Your task to perform on an android device: Open my contact list Image 0: 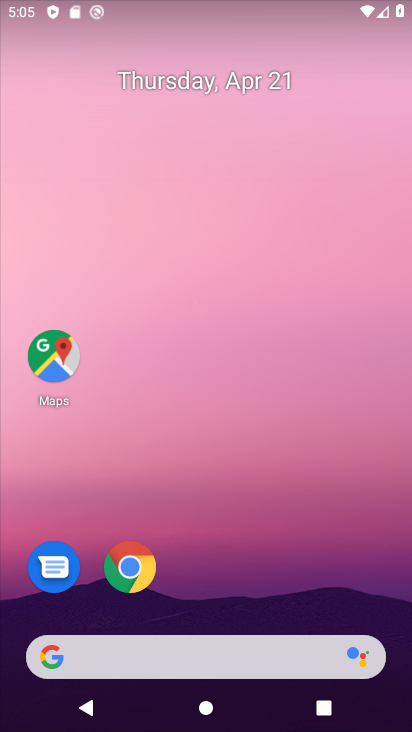
Step 0: drag from (205, 603) to (290, 14)
Your task to perform on an android device: Open my contact list Image 1: 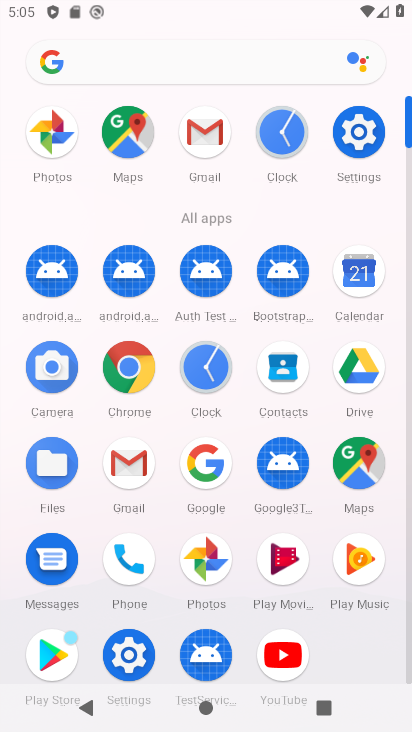
Step 1: click (287, 374)
Your task to perform on an android device: Open my contact list Image 2: 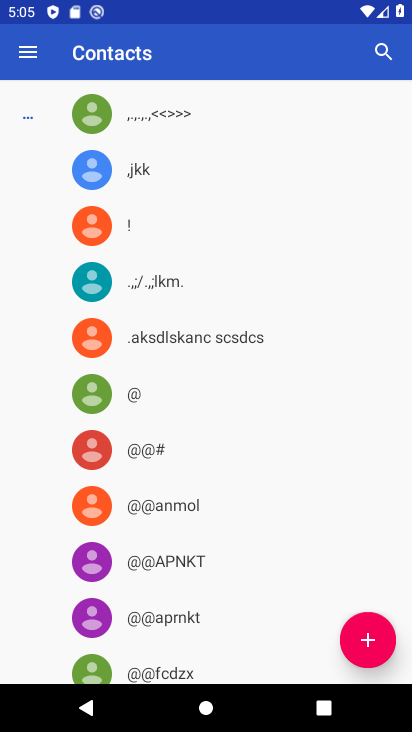
Step 2: task complete